Your task to perform on an android device: turn on priority inbox in the gmail app Image 0: 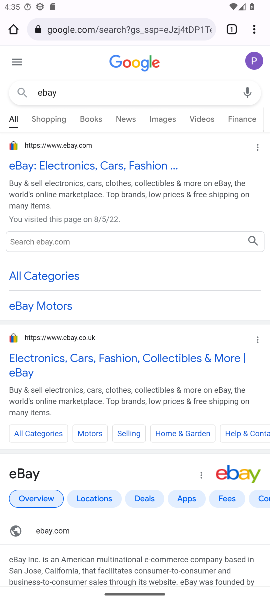
Step 0: press home button
Your task to perform on an android device: turn on priority inbox in the gmail app Image 1: 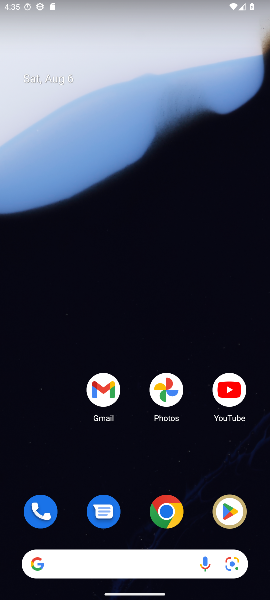
Step 1: drag from (130, 421) to (143, 95)
Your task to perform on an android device: turn on priority inbox in the gmail app Image 2: 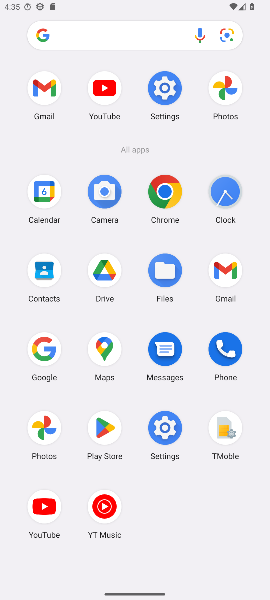
Step 2: click (222, 283)
Your task to perform on an android device: turn on priority inbox in the gmail app Image 3: 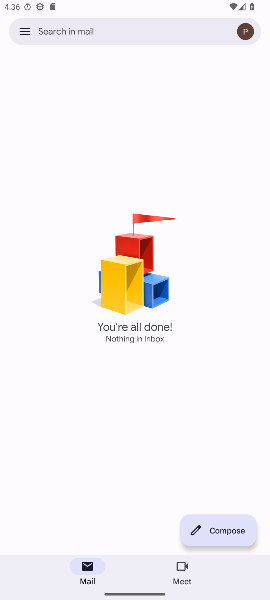
Step 3: click (25, 26)
Your task to perform on an android device: turn on priority inbox in the gmail app Image 4: 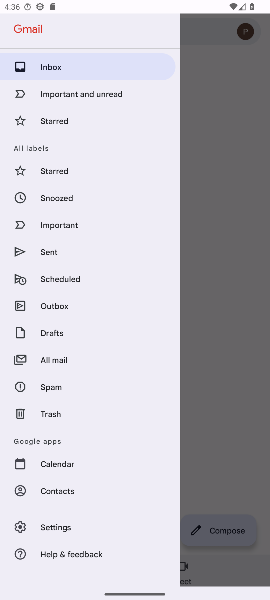
Step 4: click (42, 531)
Your task to perform on an android device: turn on priority inbox in the gmail app Image 5: 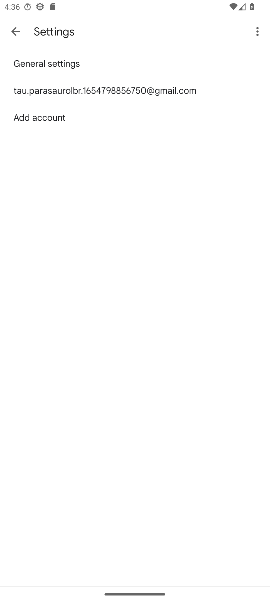
Step 5: click (49, 527)
Your task to perform on an android device: turn on priority inbox in the gmail app Image 6: 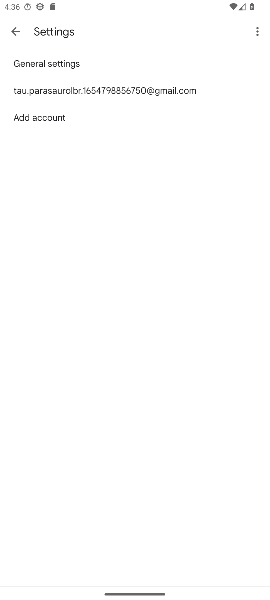
Step 6: click (100, 87)
Your task to perform on an android device: turn on priority inbox in the gmail app Image 7: 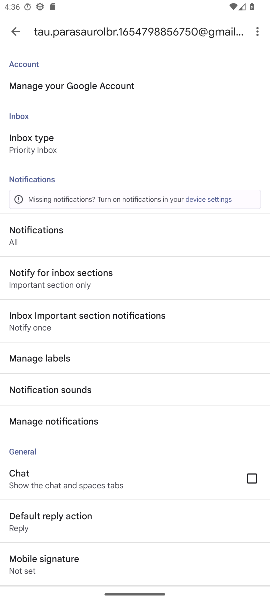
Step 7: click (57, 151)
Your task to perform on an android device: turn on priority inbox in the gmail app Image 8: 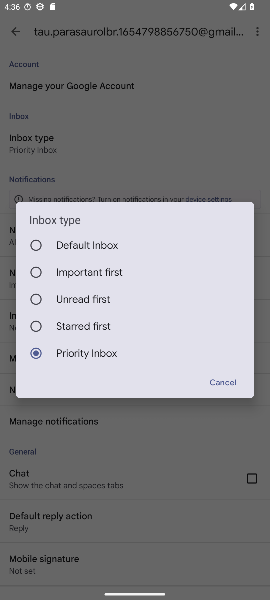
Step 8: task complete